Your task to perform on an android device: open wifi settings Image 0: 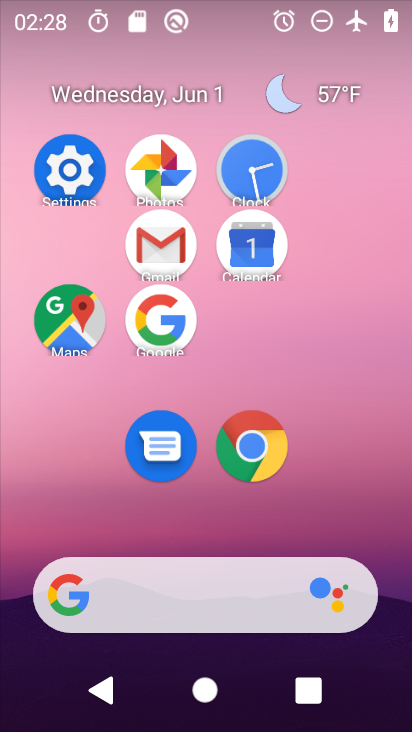
Step 0: click (89, 180)
Your task to perform on an android device: open wifi settings Image 1: 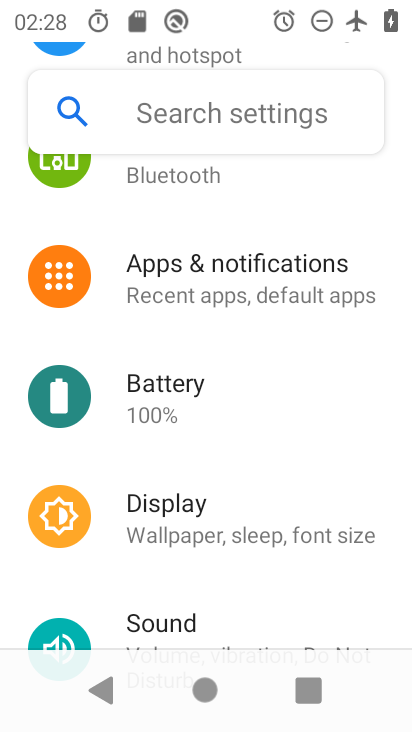
Step 1: drag from (298, 212) to (265, 721)
Your task to perform on an android device: open wifi settings Image 2: 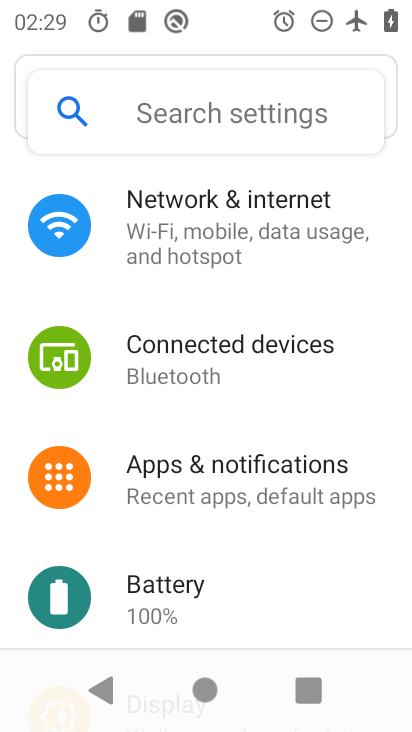
Step 2: click (236, 233)
Your task to perform on an android device: open wifi settings Image 3: 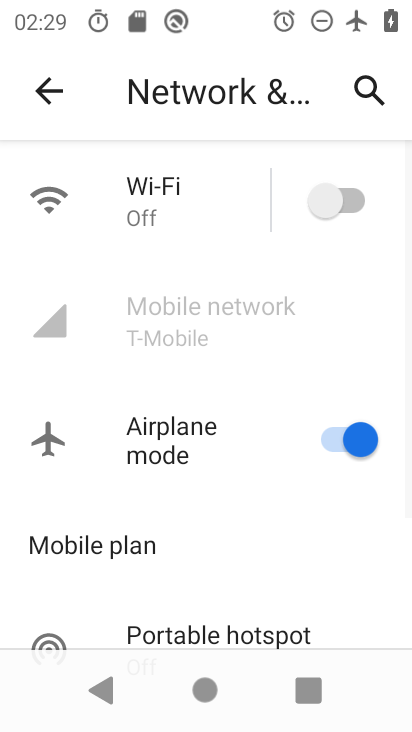
Step 3: click (204, 185)
Your task to perform on an android device: open wifi settings Image 4: 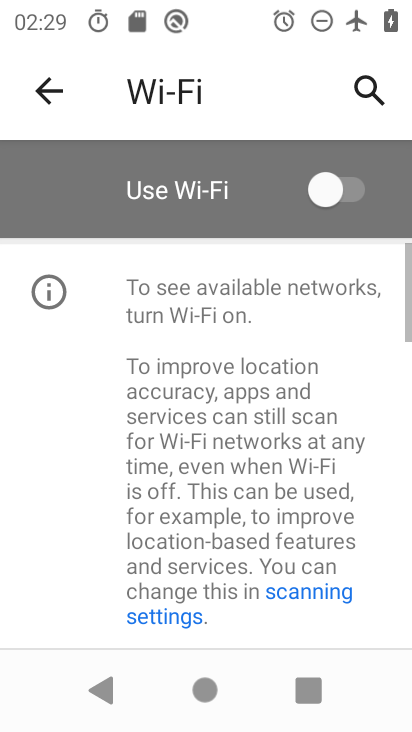
Step 4: click (342, 202)
Your task to perform on an android device: open wifi settings Image 5: 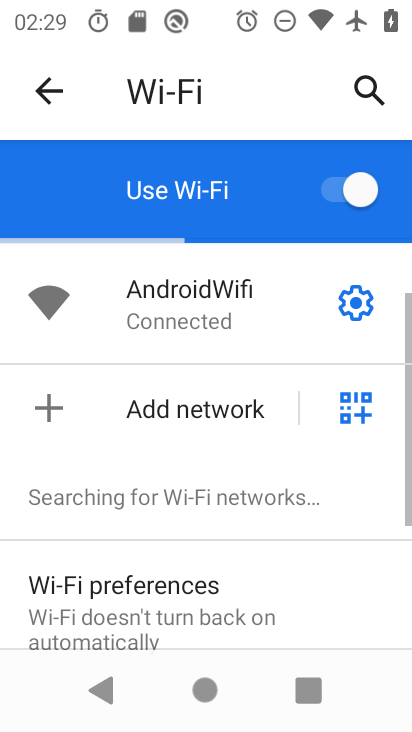
Step 5: click (339, 310)
Your task to perform on an android device: open wifi settings Image 6: 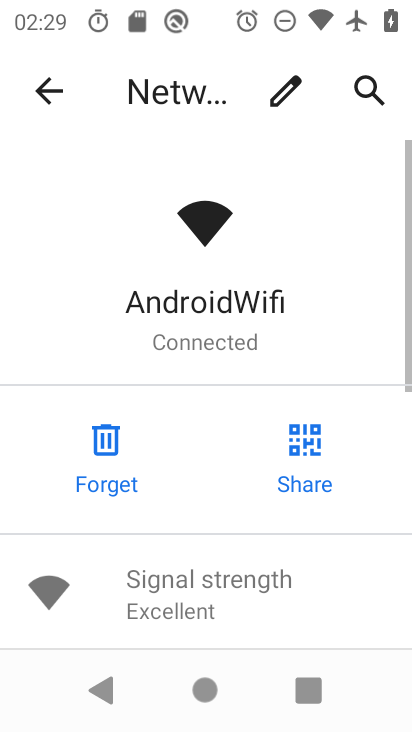
Step 6: task complete